Your task to perform on an android device: see sites visited before in the chrome app Image 0: 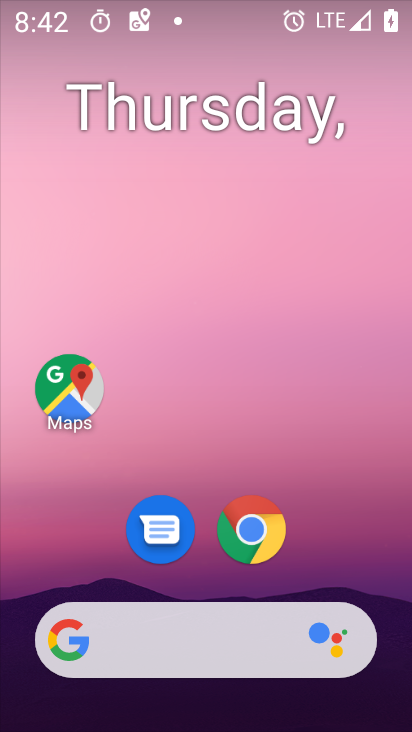
Step 0: drag from (363, 553) to (359, 263)
Your task to perform on an android device: see sites visited before in the chrome app Image 1: 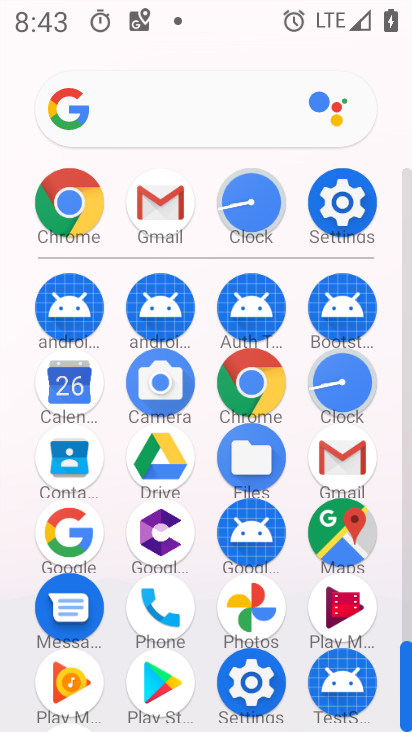
Step 1: click (271, 395)
Your task to perform on an android device: see sites visited before in the chrome app Image 2: 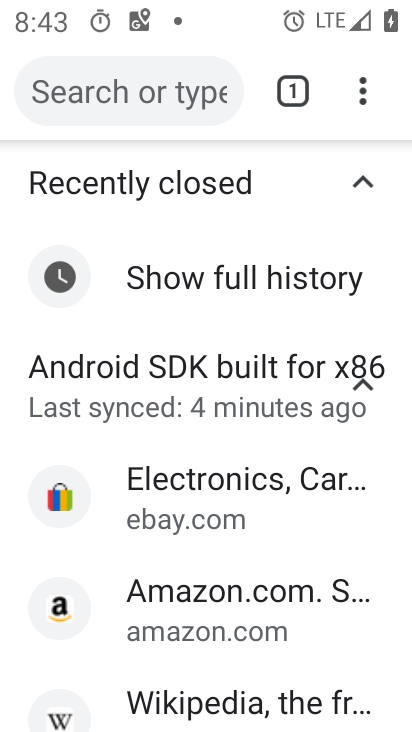
Step 2: click (366, 103)
Your task to perform on an android device: see sites visited before in the chrome app Image 3: 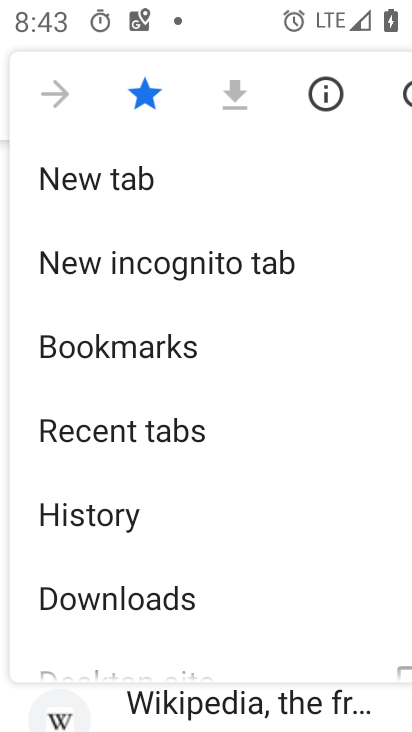
Step 3: click (140, 513)
Your task to perform on an android device: see sites visited before in the chrome app Image 4: 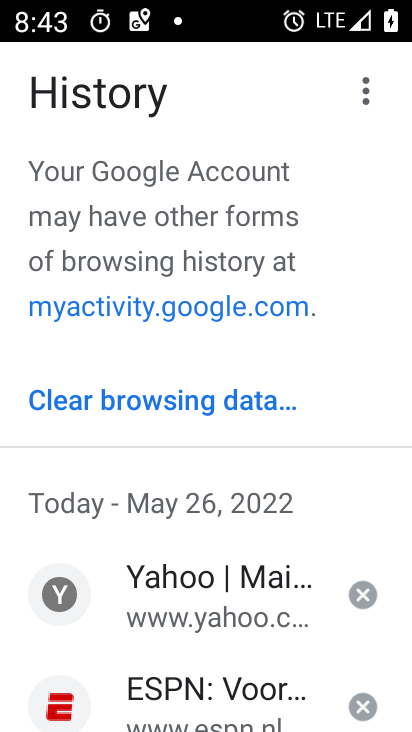
Step 4: task complete